Your task to perform on an android device: Open privacy settings Image 0: 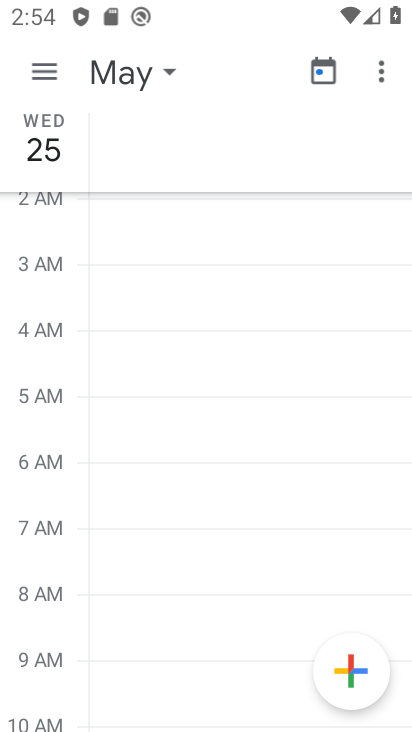
Step 0: press back button
Your task to perform on an android device: Open privacy settings Image 1: 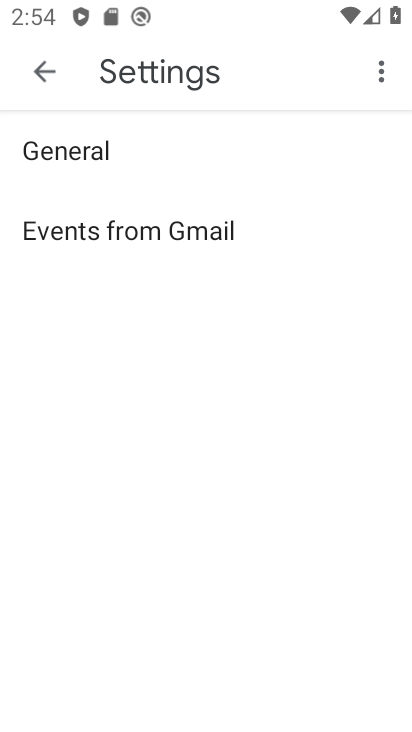
Step 1: press back button
Your task to perform on an android device: Open privacy settings Image 2: 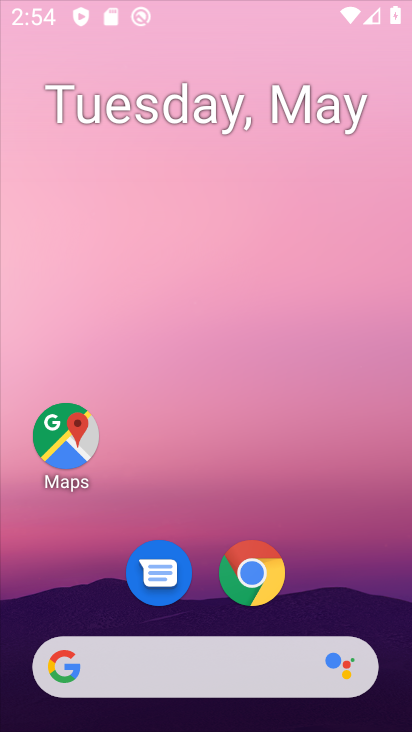
Step 2: press home button
Your task to perform on an android device: Open privacy settings Image 3: 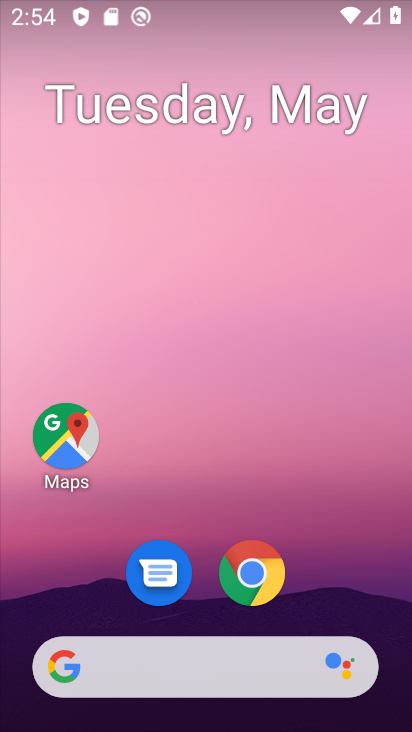
Step 3: drag from (324, 571) to (290, 33)
Your task to perform on an android device: Open privacy settings Image 4: 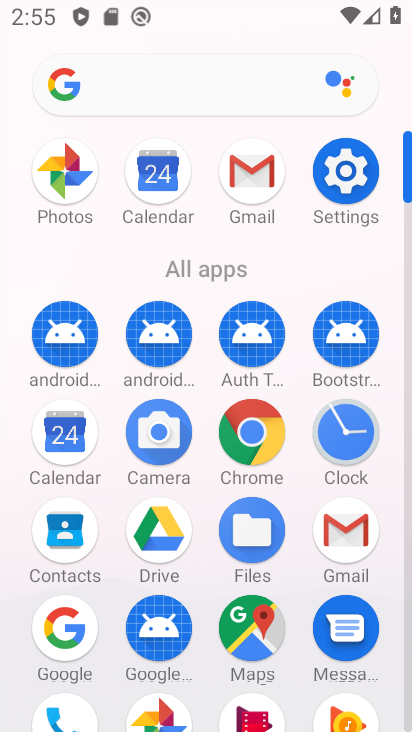
Step 4: click (249, 431)
Your task to perform on an android device: Open privacy settings Image 5: 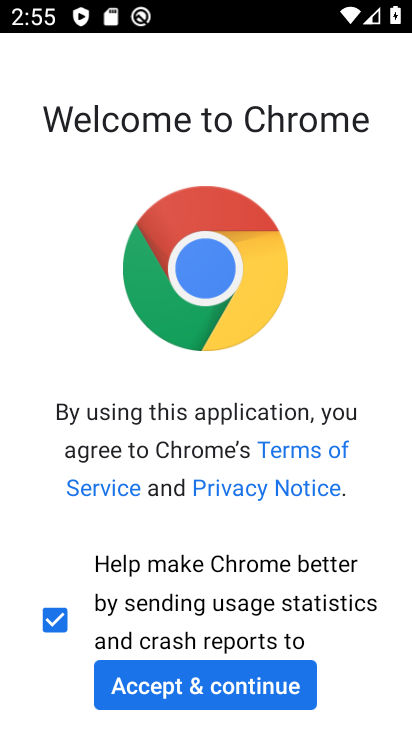
Step 5: click (182, 677)
Your task to perform on an android device: Open privacy settings Image 6: 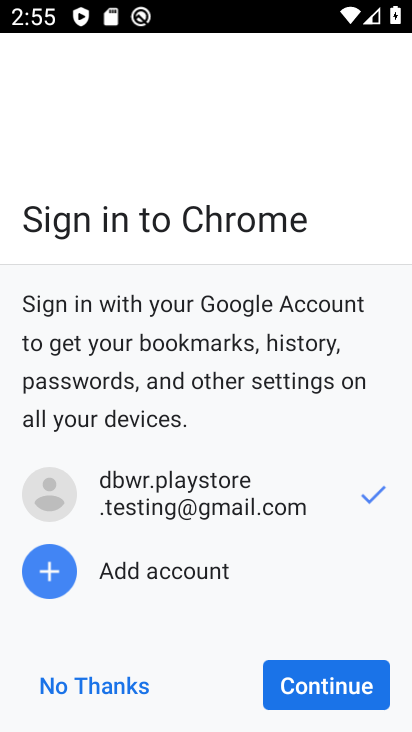
Step 6: click (275, 677)
Your task to perform on an android device: Open privacy settings Image 7: 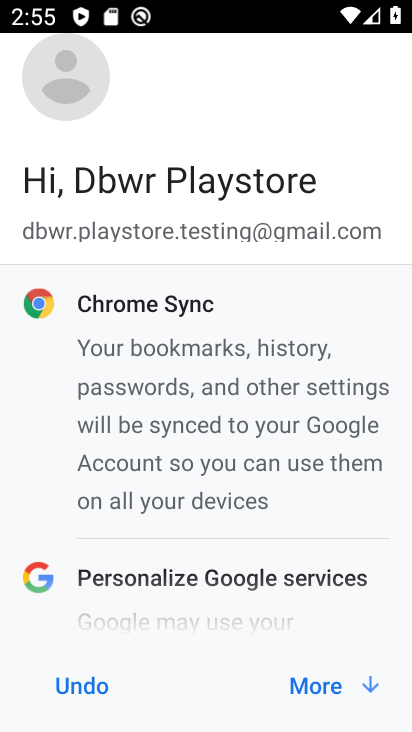
Step 7: click (329, 687)
Your task to perform on an android device: Open privacy settings Image 8: 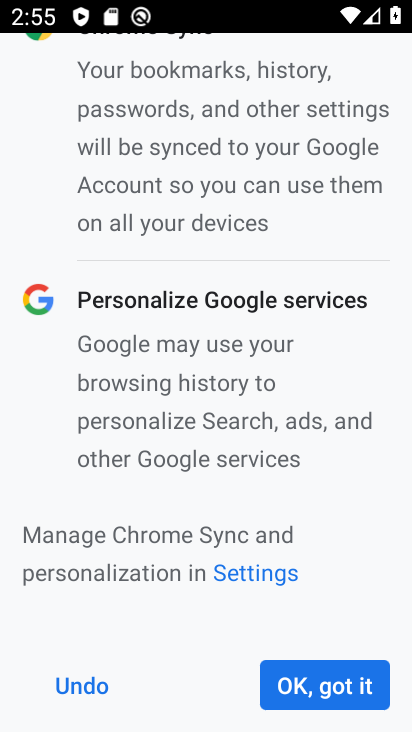
Step 8: click (332, 688)
Your task to perform on an android device: Open privacy settings Image 9: 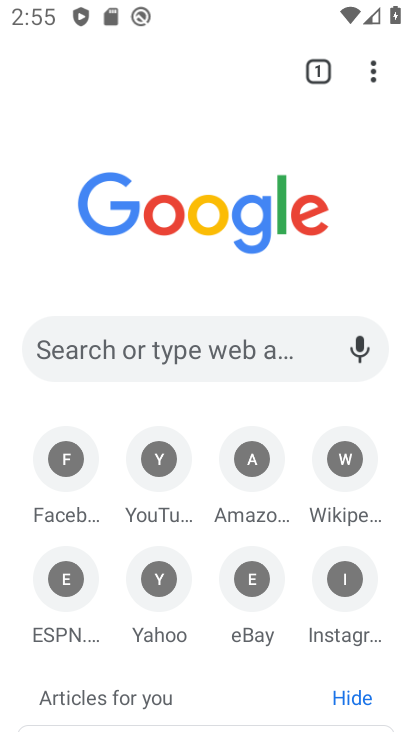
Step 9: drag from (376, 69) to (132, 604)
Your task to perform on an android device: Open privacy settings Image 10: 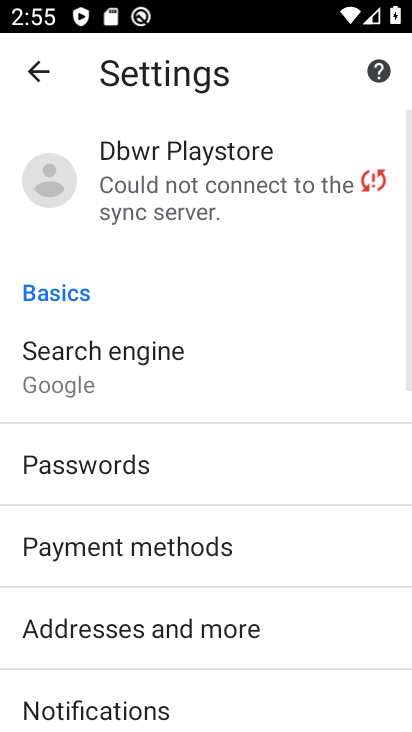
Step 10: drag from (224, 534) to (243, 133)
Your task to perform on an android device: Open privacy settings Image 11: 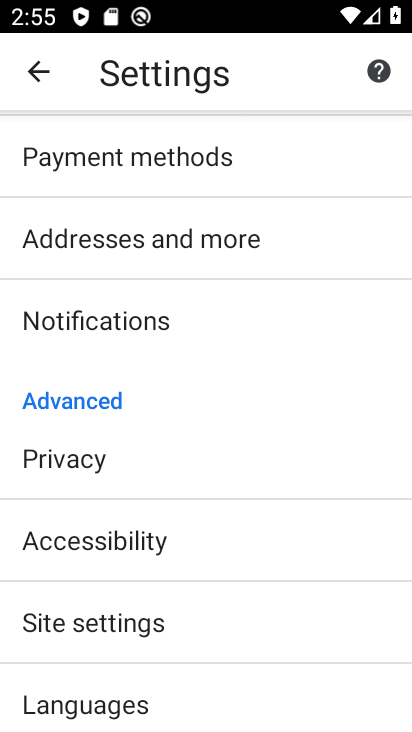
Step 11: click (70, 456)
Your task to perform on an android device: Open privacy settings Image 12: 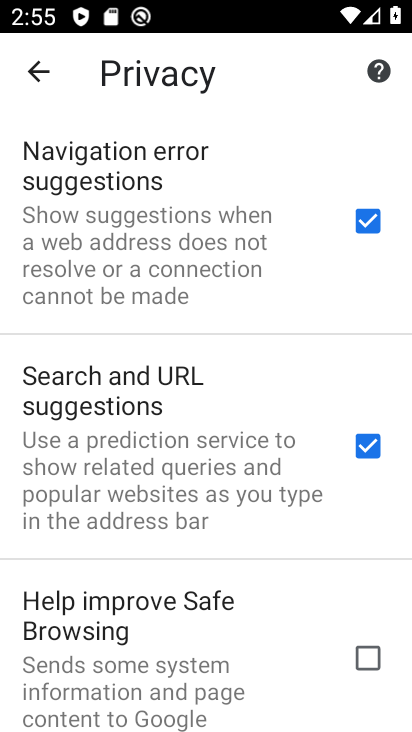
Step 12: task complete